Your task to perform on an android device: change your default location settings in chrome Image 0: 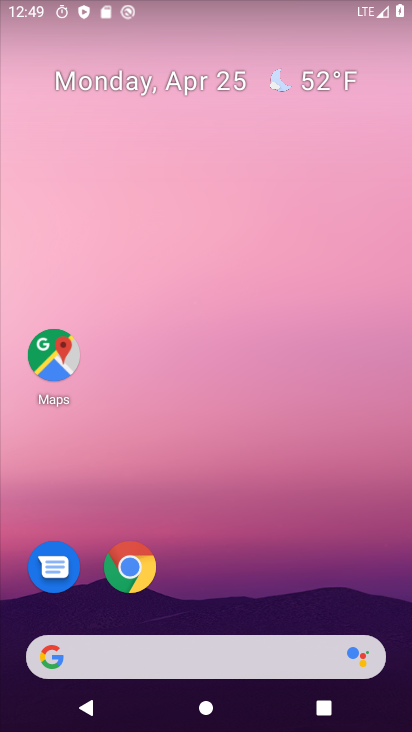
Step 0: drag from (296, 546) to (302, 447)
Your task to perform on an android device: change your default location settings in chrome Image 1: 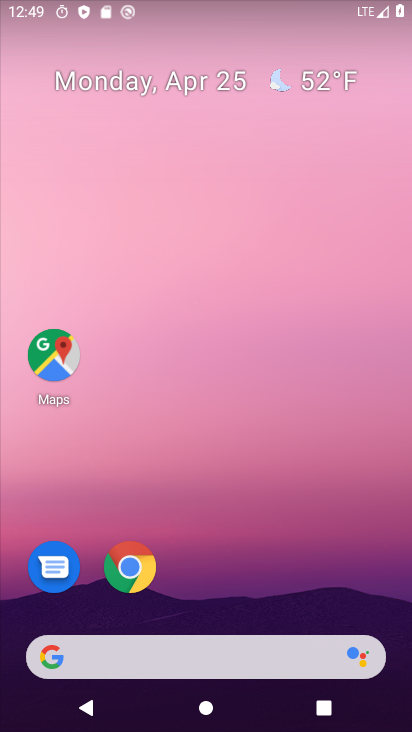
Step 1: click (143, 561)
Your task to perform on an android device: change your default location settings in chrome Image 2: 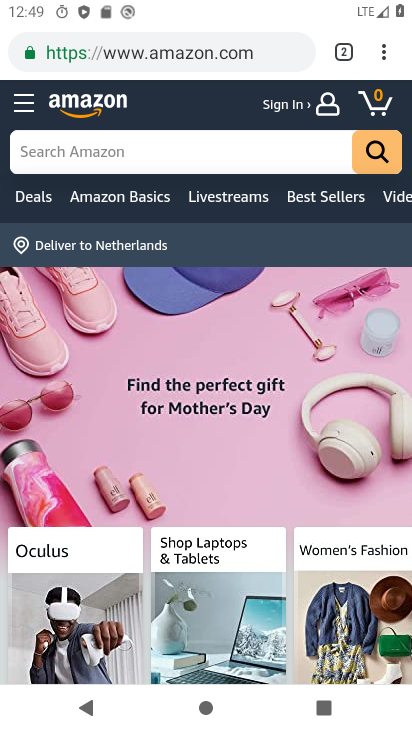
Step 2: click (383, 50)
Your task to perform on an android device: change your default location settings in chrome Image 3: 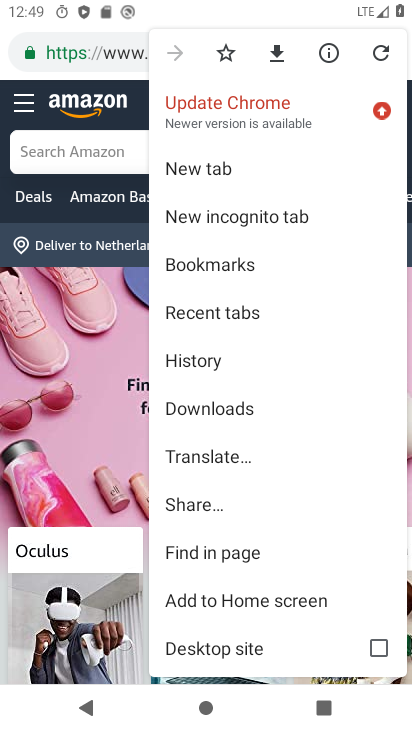
Step 3: drag from (284, 456) to (286, 283)
Your task to perform on an android device: change your default location settings in chrome Image 4: 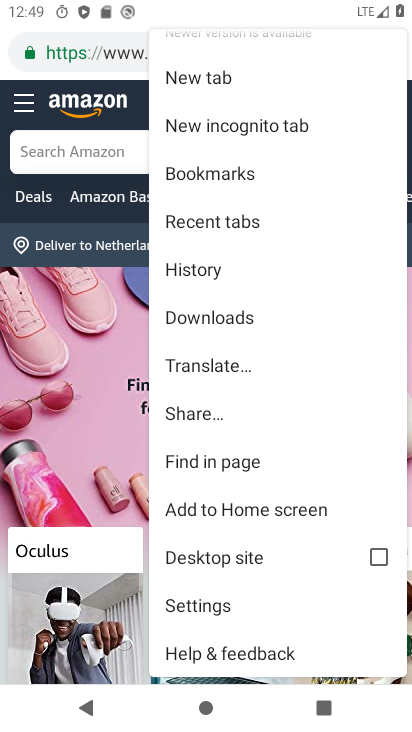
Step 4: click (244, 601)
Your task to perform on an android device: change your default location settings in chrome Image 5: 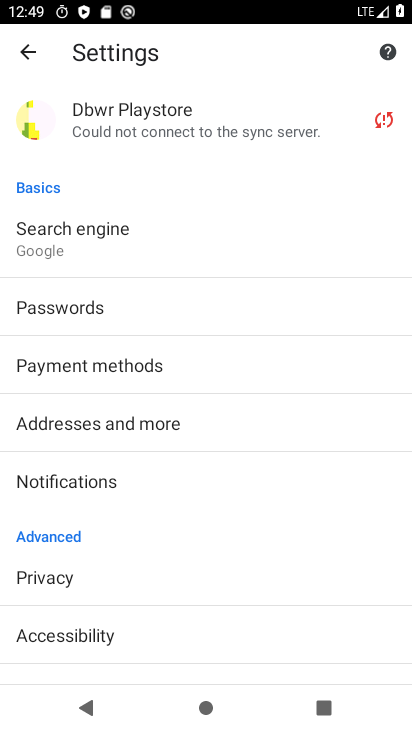
Step 5: drag from (242, 582) to (253, 302)
Your task to perform on an android device: change your default location settings in chrome Image 6: 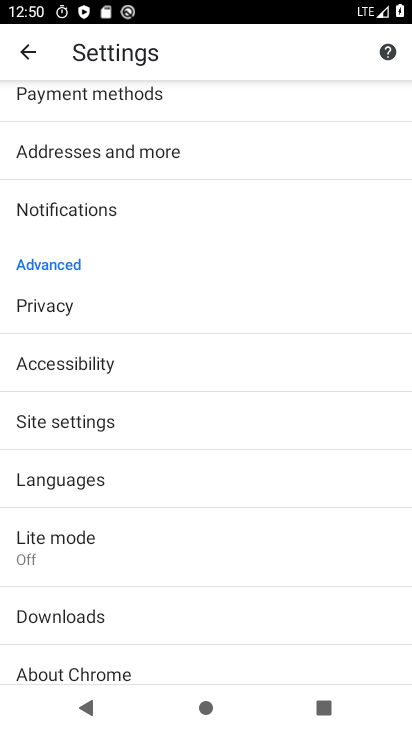
Step 6: click (202, 419)
Your task to perform on an android device: change your default location settings in chrome Image 7: 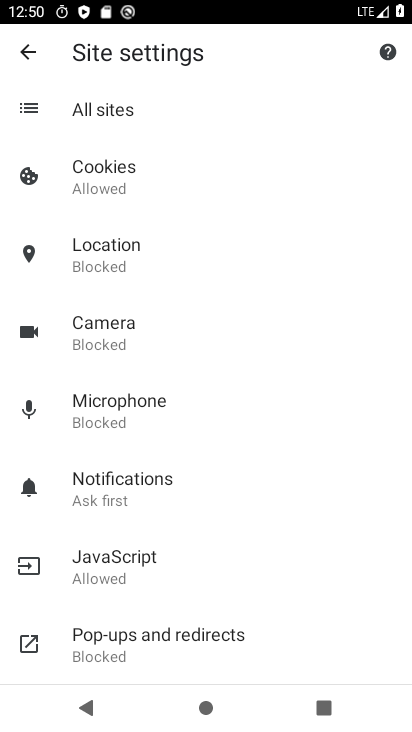
Step 7: click (137, 247)
Your task to perform on an android device: change your default location settings in chrome Image 8: 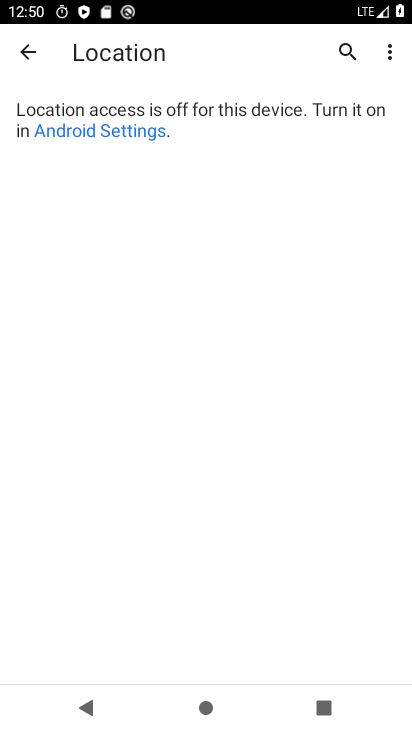
Step 8: click (114, 122)
Your task to perform on an android device: change your default location settings in chrome Image 9: 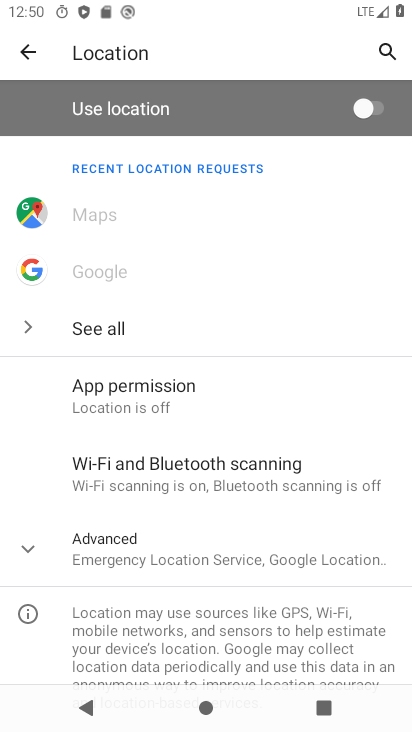
Step 9: click (381, 101)
Your task to perform on an android device: change your default location settings in chrome Image 10: 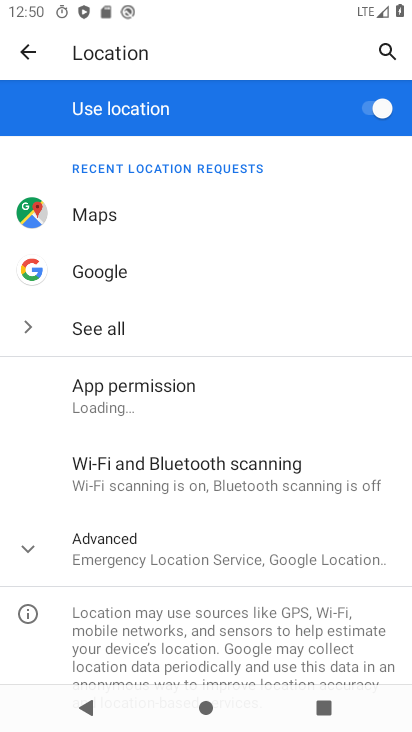
Step 10: task complete